Your task to perform on an android device: add a contact Image 0: 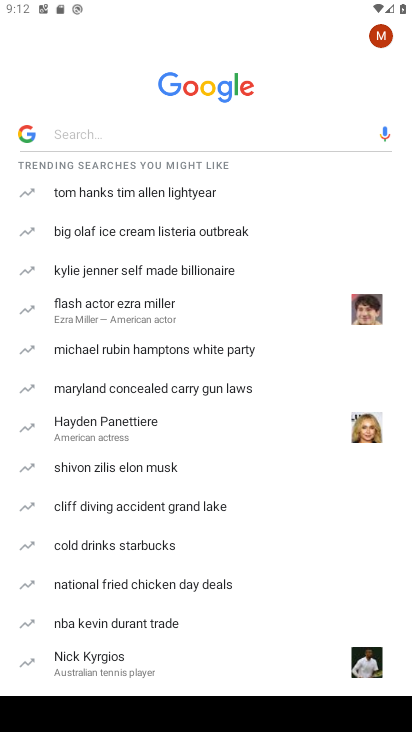
Step 0: press home button
Your task to perform on an android device: add a contact Image 1: 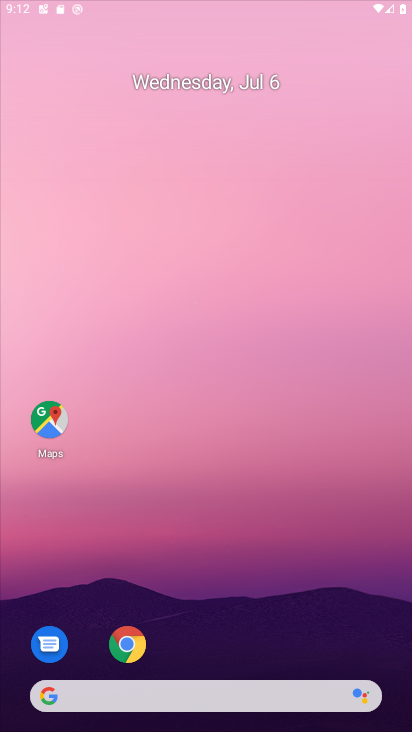
Step 1: drag from (226, 627) to (183, 100)
Your task to perform on an android device: add a contact Image 2: 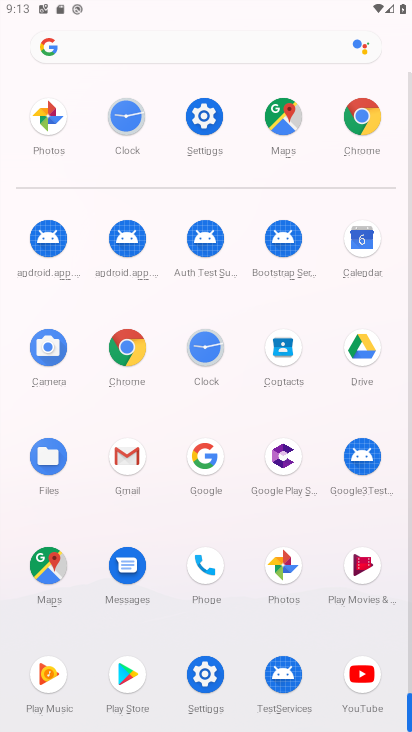
Step 2: click (293, 356)
Your task to perform on an android device: add a contact Image 3: 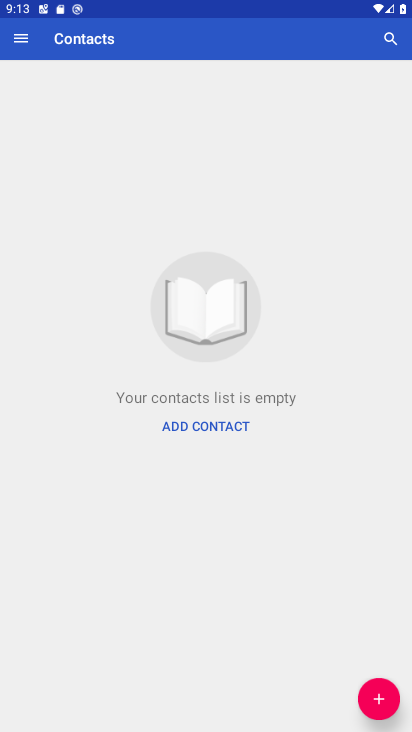
Step 3: click (385, 707)
Your task to perform on an android device: add a contact Image 4: 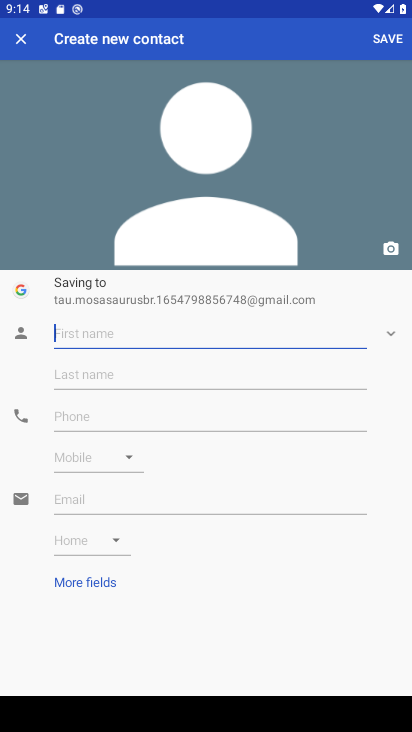
Step 4: type "guyvnj"
Your task to perform on an android device: add a contact Image 5: 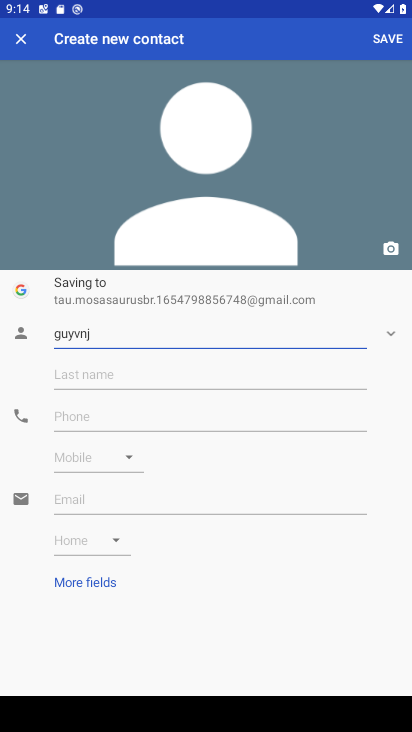
Step 5: click (186, 425)
Your task to perform on an android device: add a contact Image 6: 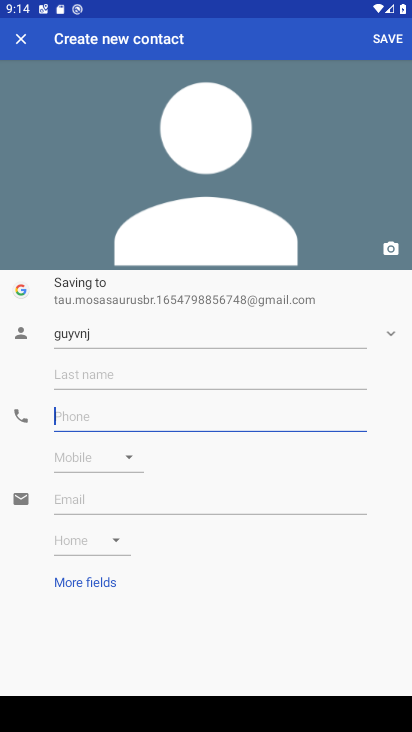
Step 6: type "868546446"
Your task to perform on an android device: add a contact Image 7: 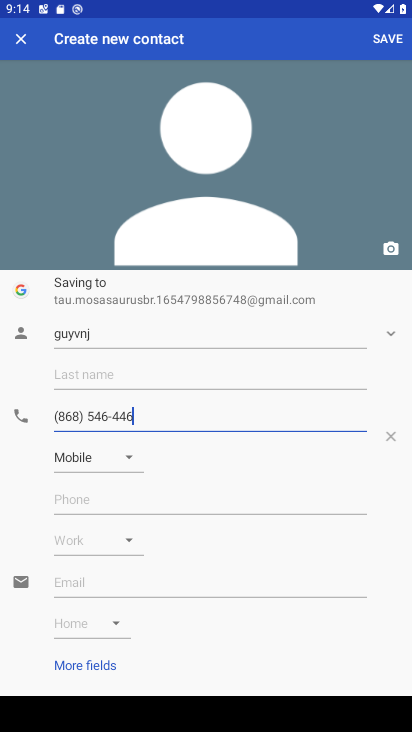
Step 7: click (381, 38)
Your task to perform on an android device: add a contact Image 8: 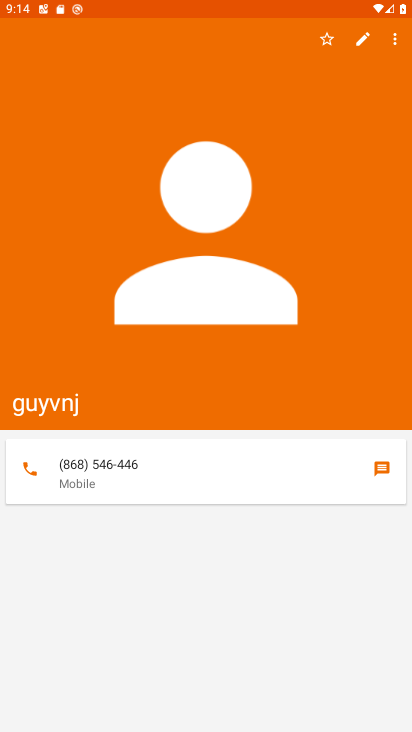
Step 8: task complete